Your task to perform on an android device: Open Android settings Image 0: 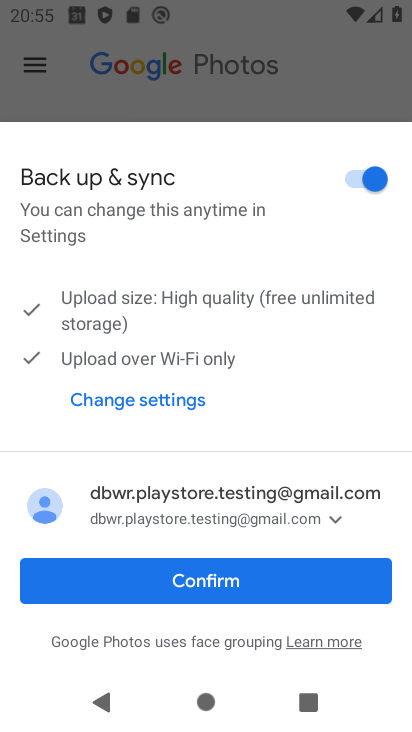
Step 0: press home button
Your task to perform on an android device: Open Android settings Image 1: 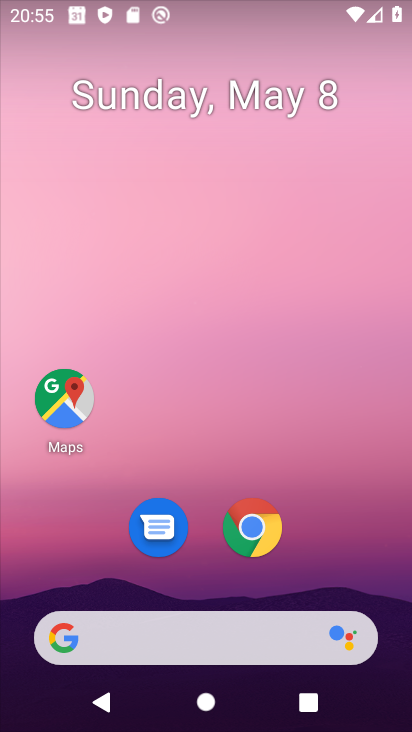
Step 1: drag from (201, 555) to (218, 55)
Your task to perform on an android device: Open Android settings Image 2: 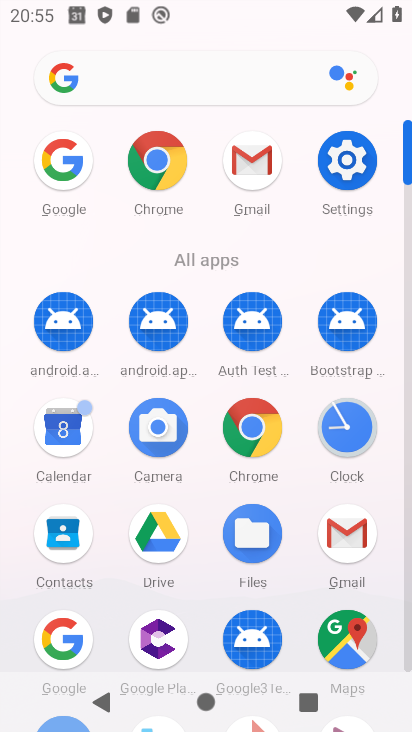
Step 2: click (340, 156)
Your task to perform on an android device: Open Android settings Image 3: 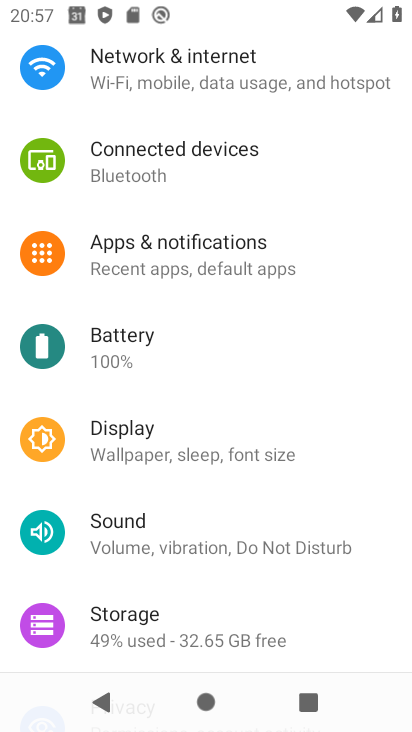
Step 3: task complete